Your task to perform on an android device: open app "AliExpress" Image 0: 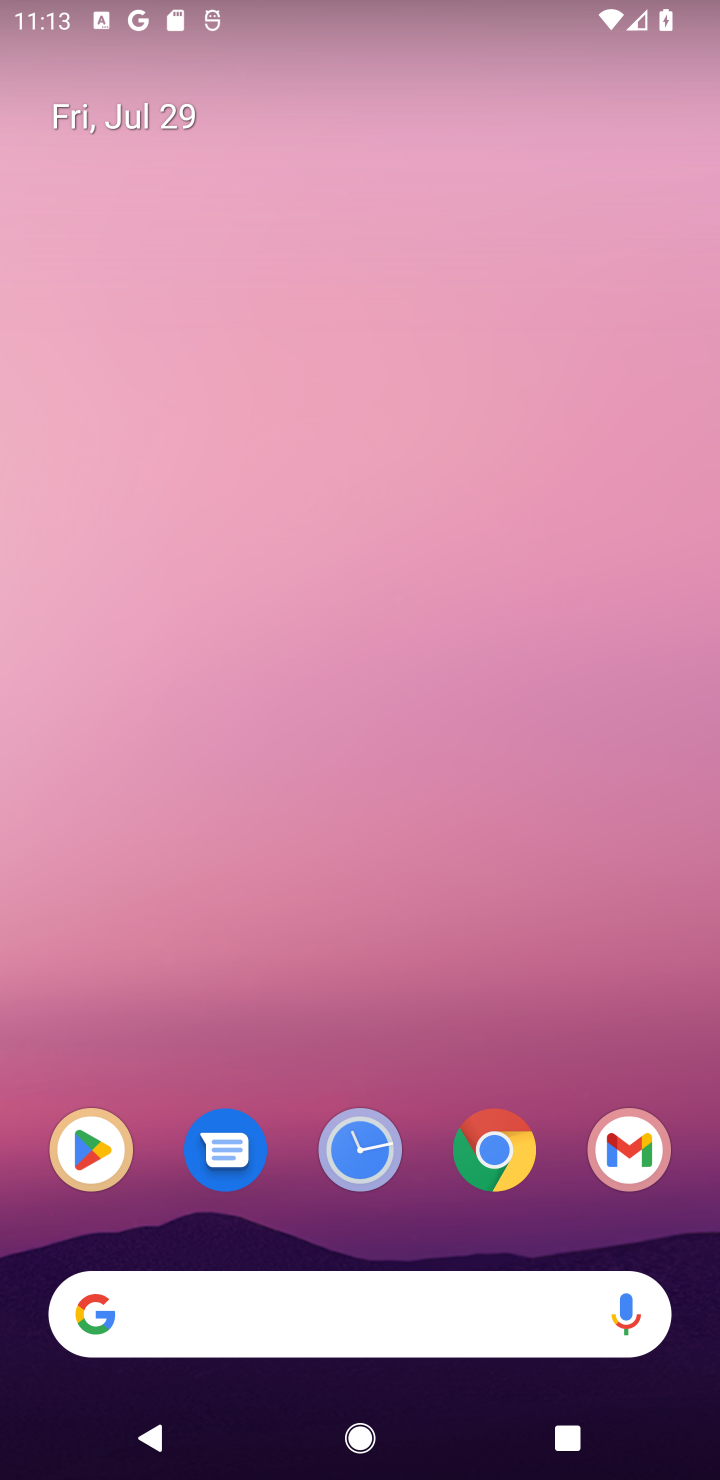
Step 0: click (85, 1156)
Your task to perform on an android device: open app "AliExpress" Image 1: 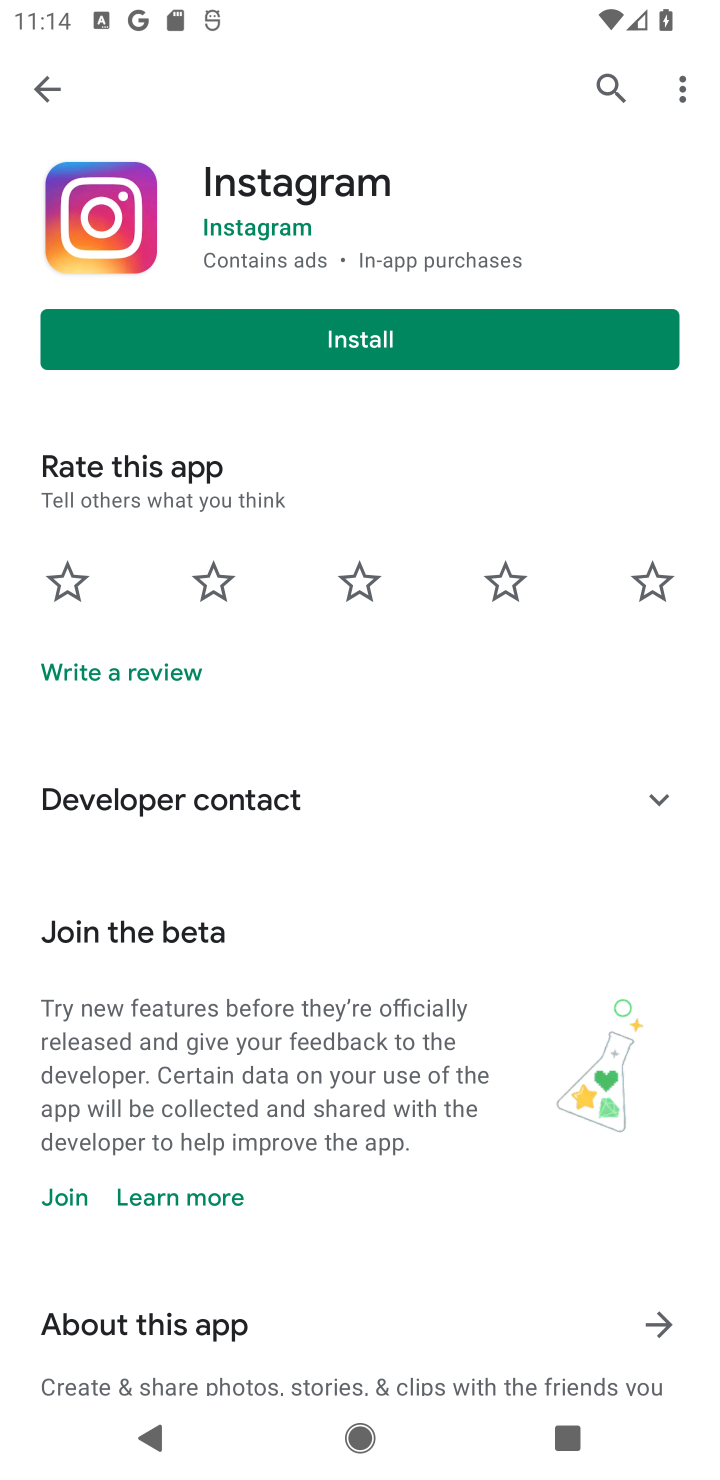
Step 1: click (598, 70)
Your task to perform on an android device: open app "AliExpress" Image 2: 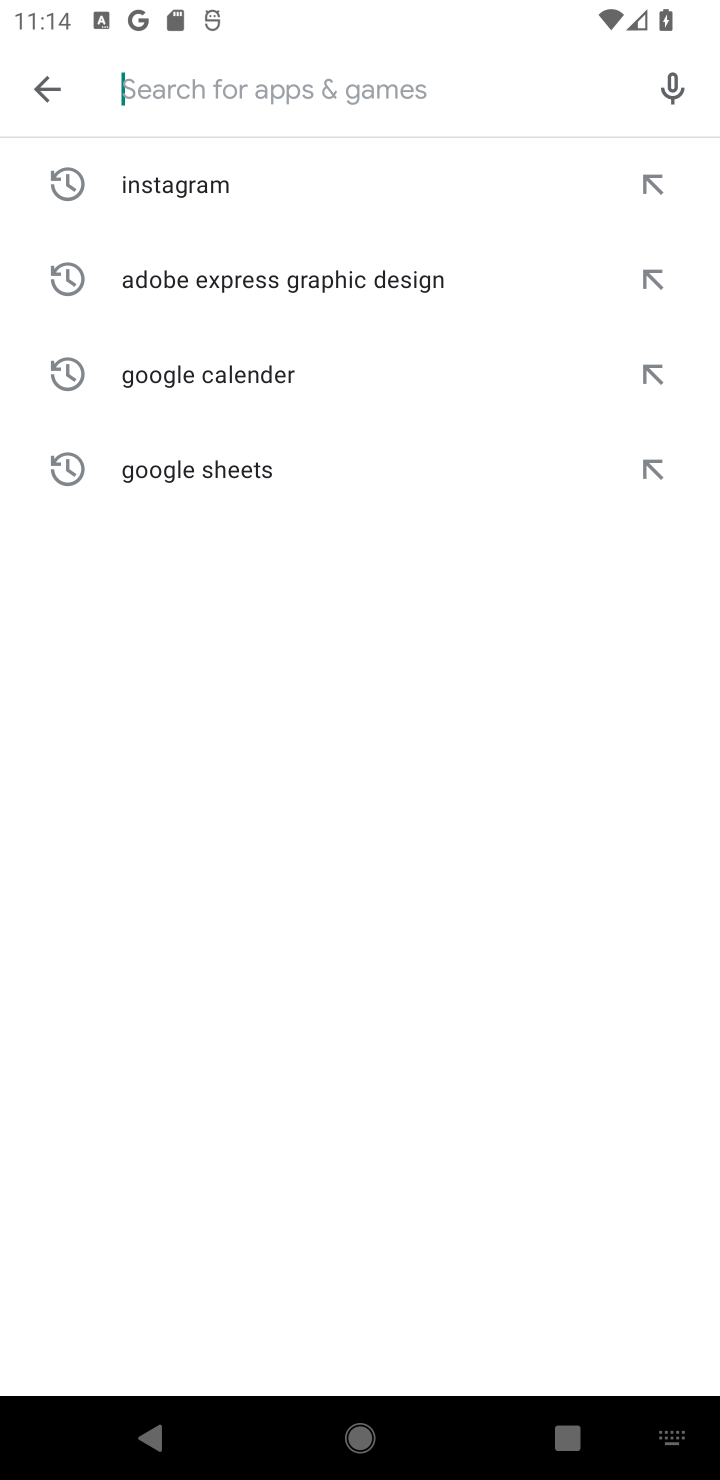
Step 2: click (245, 91)
Your task to perform on an android device: open app "AliExpress" Image 3: 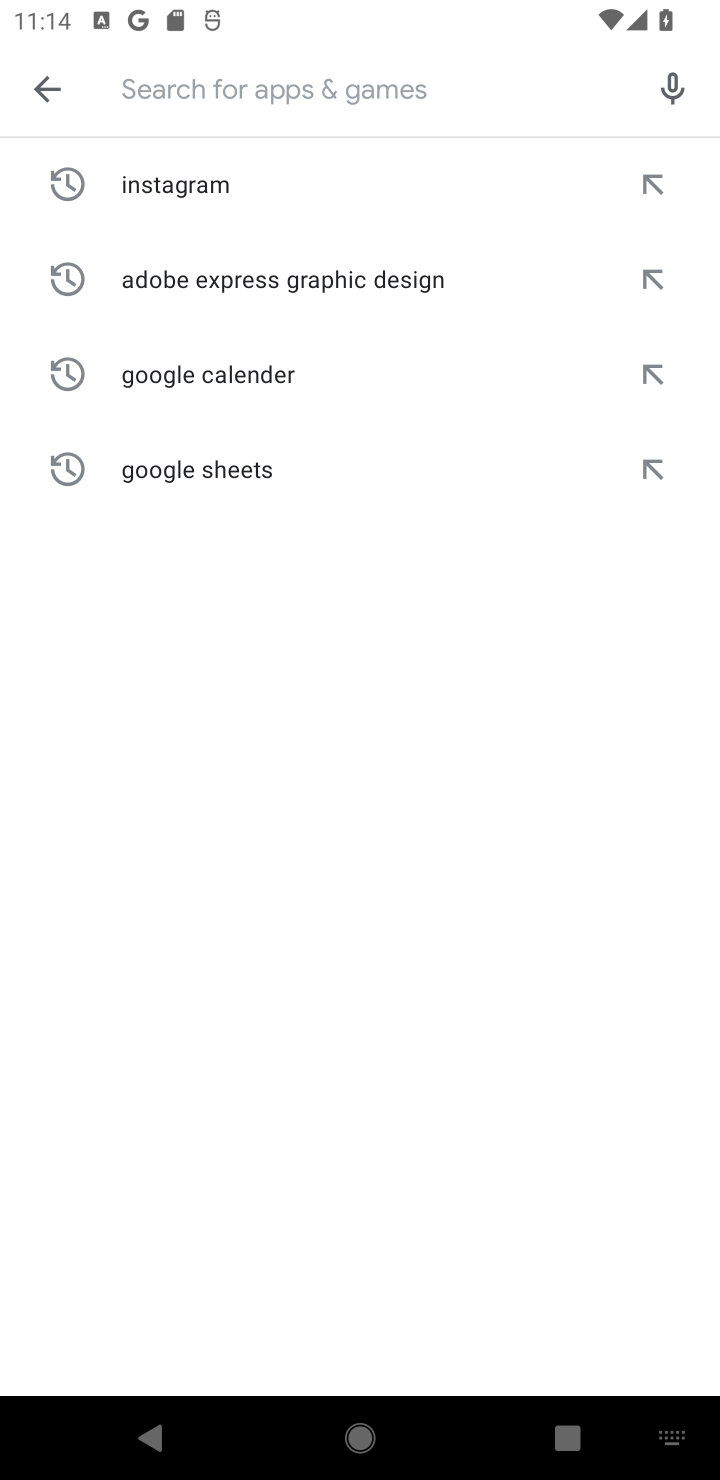
Step 3: type "ali express"
Your task to perform on an android device: open app "AliExpress" Image 4: 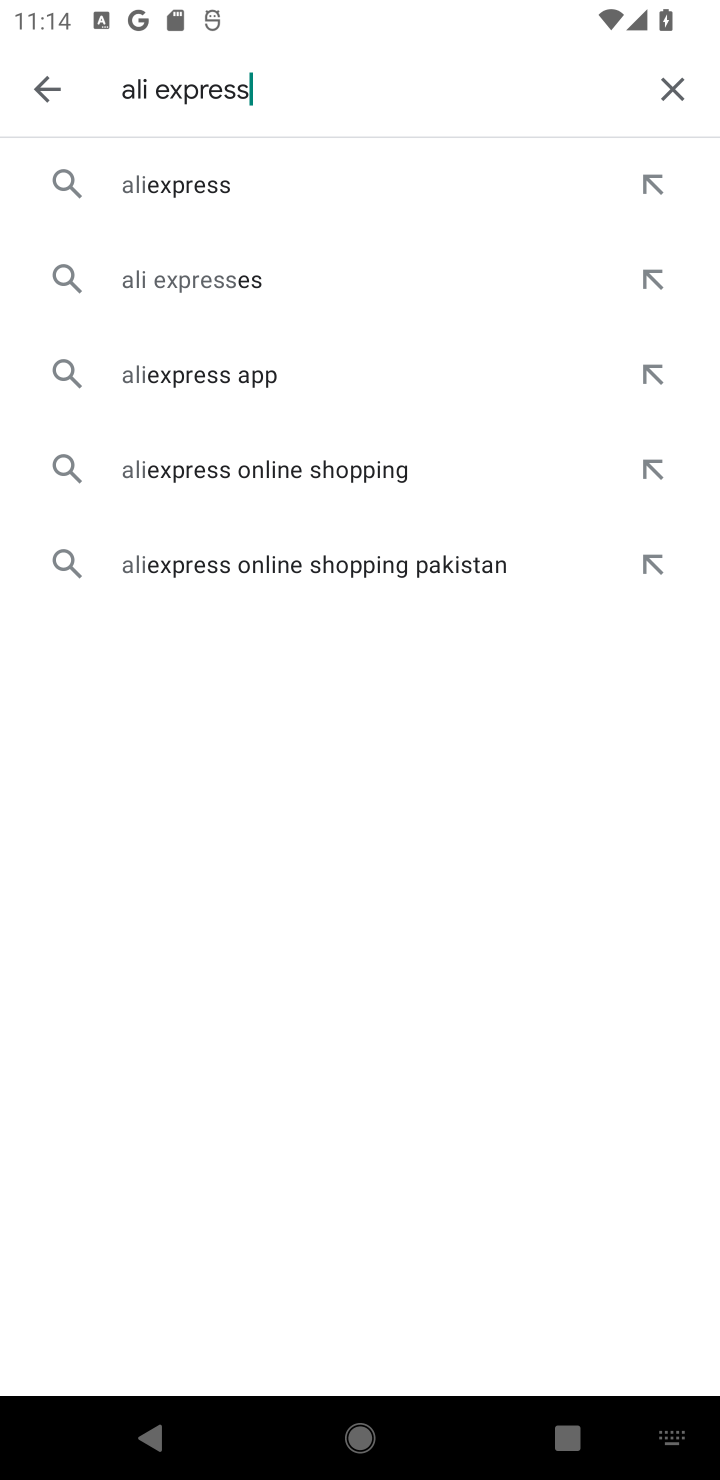
Step 4: click (276, 190)
Your task to perform on an android device: open app "AliExpress" Image 5: 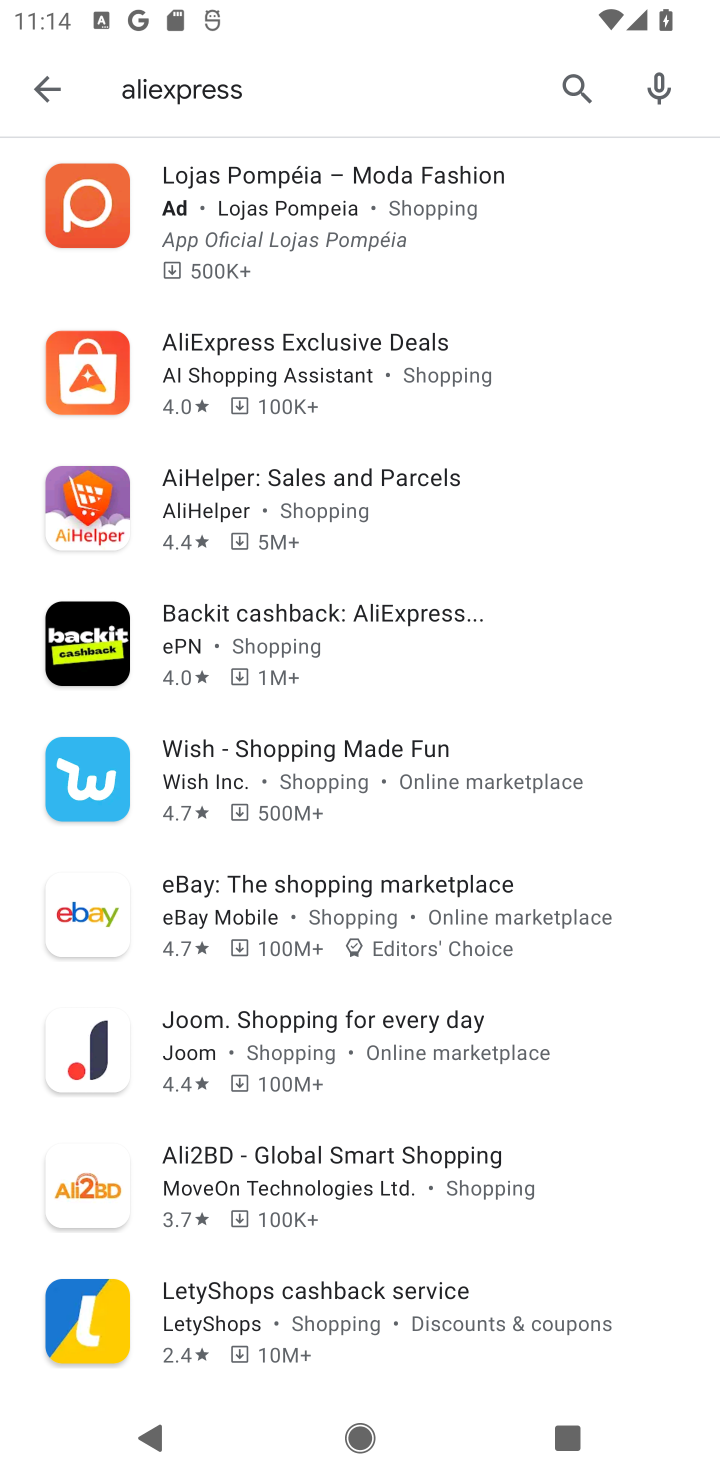
Step 5: click (298, 376)
Your task to perform on an android device: open app "AliExpress" Image 6: 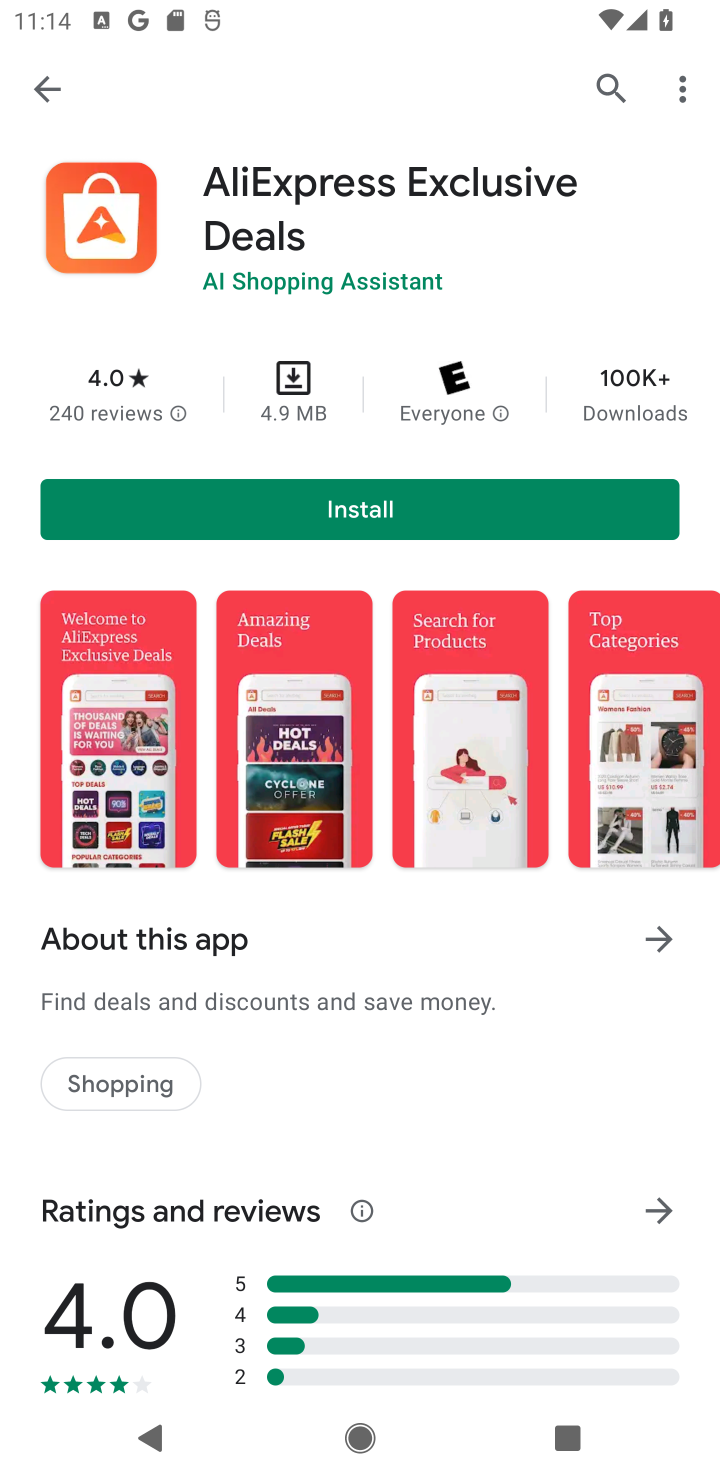
Step 6: task complete